Your task to perform on an android device: check storage Image 0: 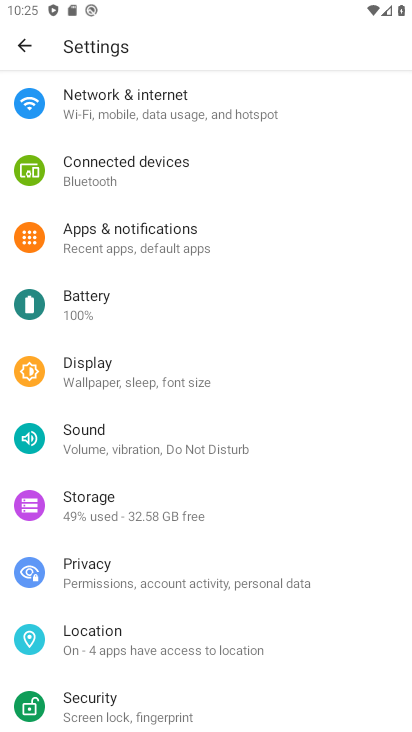
Step 0: click (89, 509)
Your task to perform on an android device: check storage Image 1: 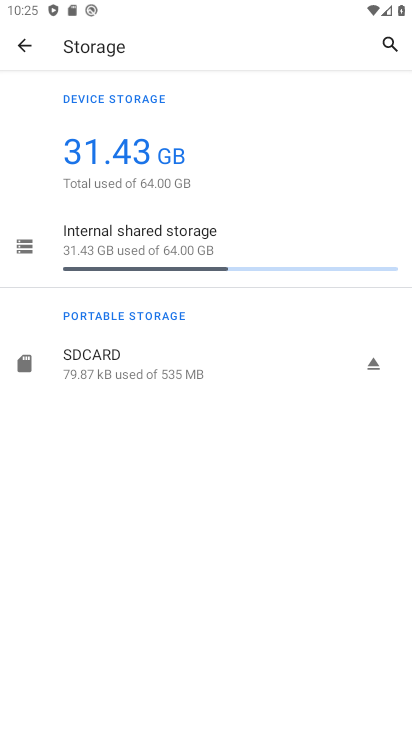
Step 1: task complete